Your task to perform on an android device: Open Google Chrome Image 0: 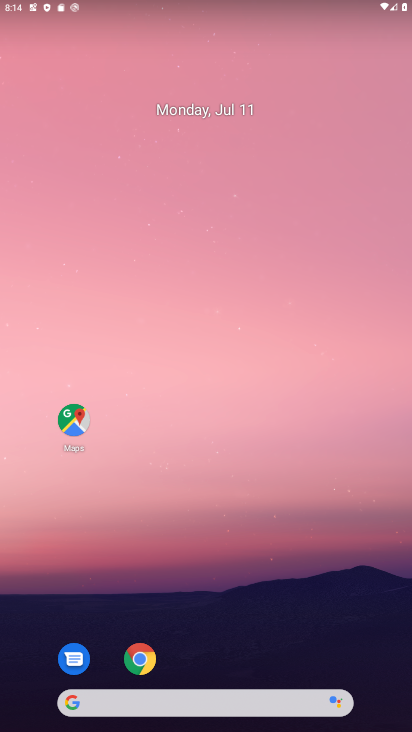
Step 0: drag from (197, 628) to (273, 157)
Your task to perform on an android device: Open Google Chrome Image 1: 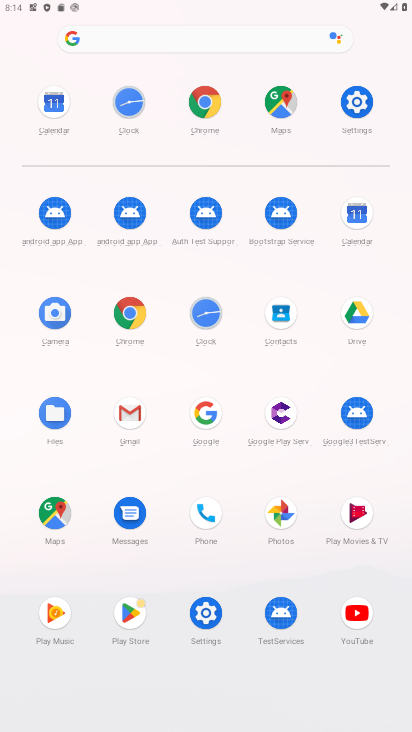
Step 1: click (124, 306)
Your task to perform on an android device: Open Google Chrome Image 2: 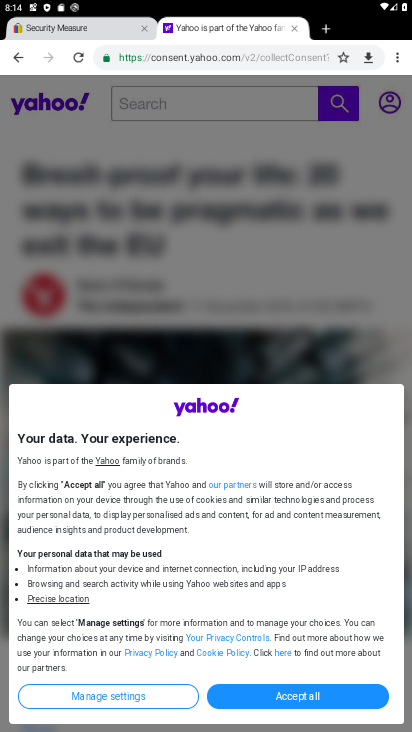
Step 2: task complete